Your task to perform on an android device: When is my next meeting? Image 0: 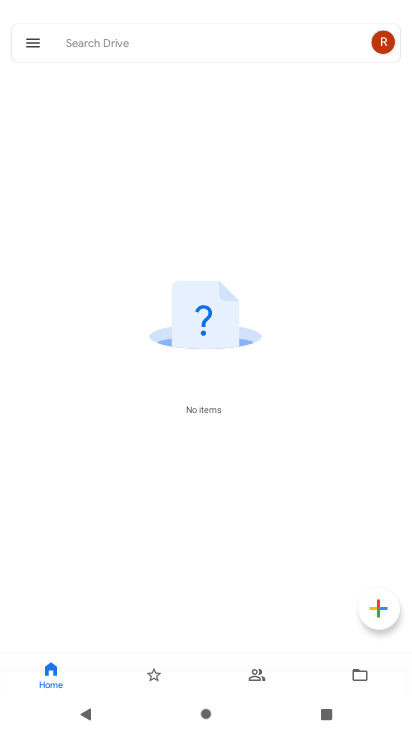
Step 0: press home button
Your task to perform on an android device: When is my next meeting? Image 1: 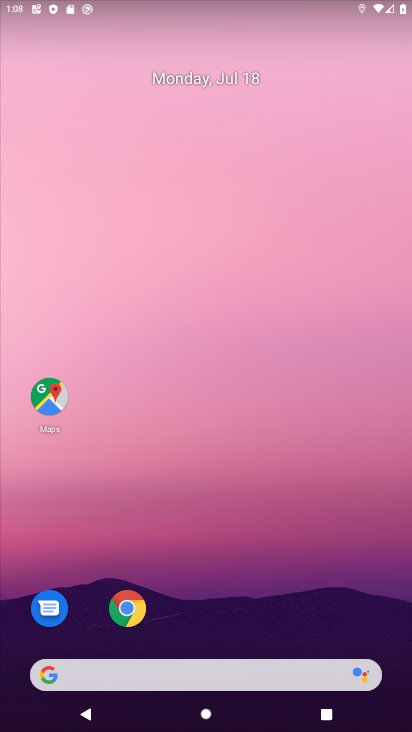
Step 1: drag from (280, 606) to (306, 101)
Your task to perform on an android device: When is my next meeting? Image 2: 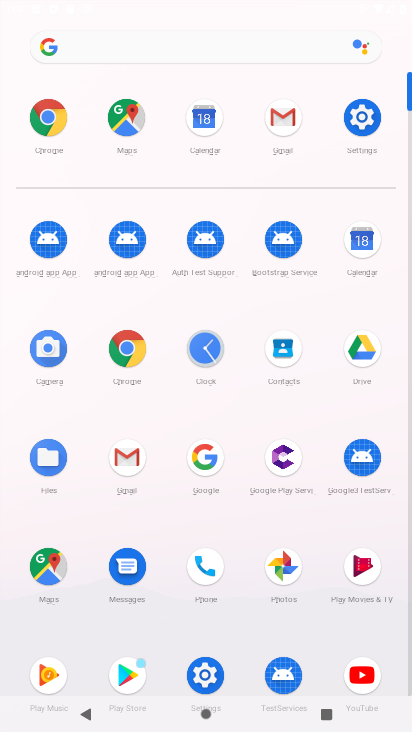
Step 2: click (366, 245)
Your task to perform on an android device: When is my next meeting? Image 3: 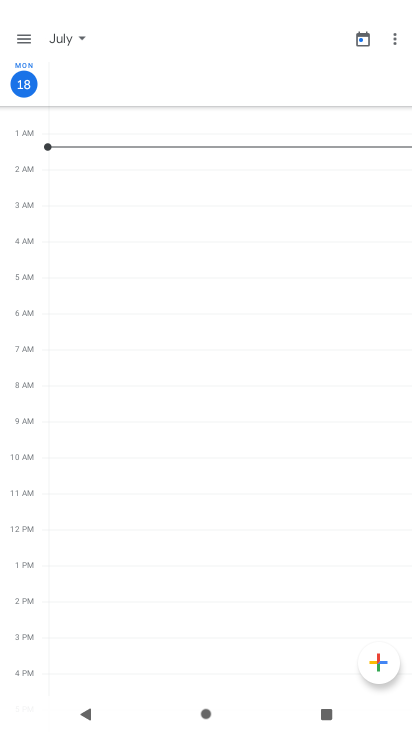
Step 3: click (30, 32)
Your task to perform on an android device: When is my next meeting? Image 4: 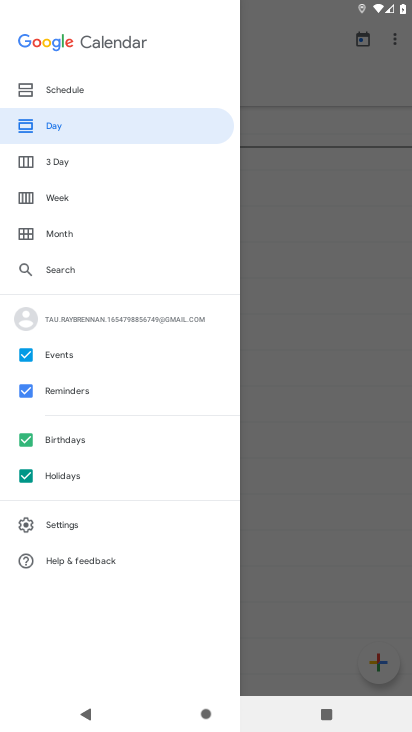
Step 4: click (69, 96)
Your task to perform on an android device: When is my next meeting? Image 5: 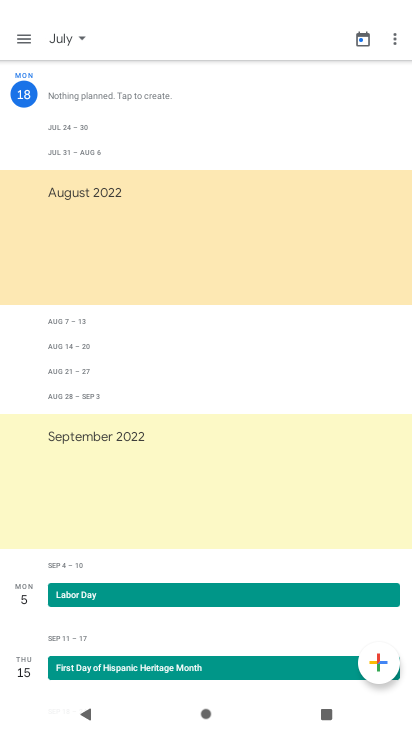
Step 5: task complete